Your task to perform on an android device: Go to accessibility settings Image 0: 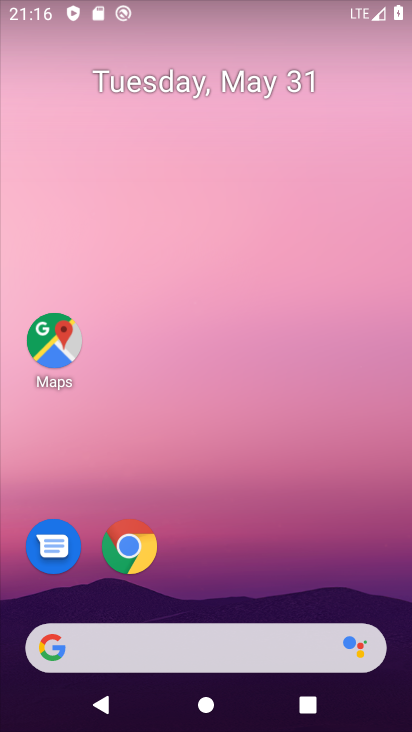
Step 0: drag from (387, 713) to (332, 99)
Your task to perform on an android device: Go to accessibility settings Image 1: 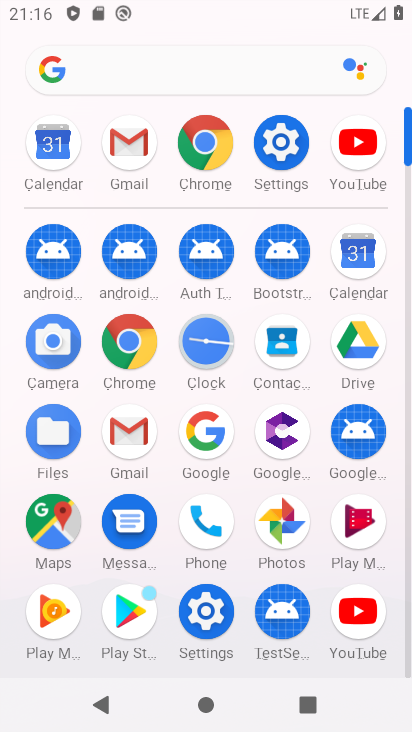
Step 1: click (289, 131)
Your task to perform on an android device: Go to accessibility settings Image 2: 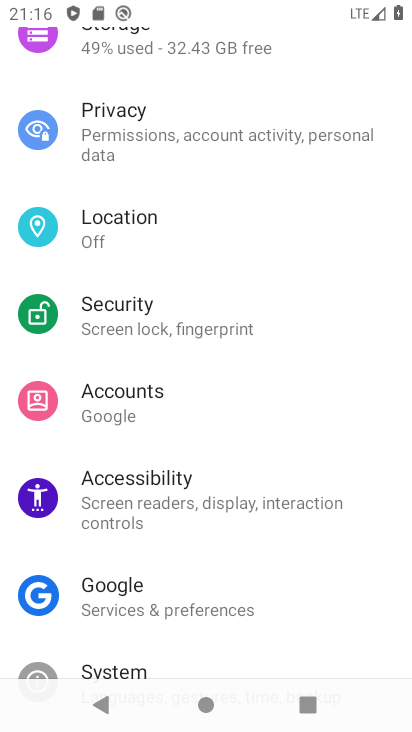
Step 2: click (144, 494)
Your task to perform on an android device: Go to accessibility settings Image 3: 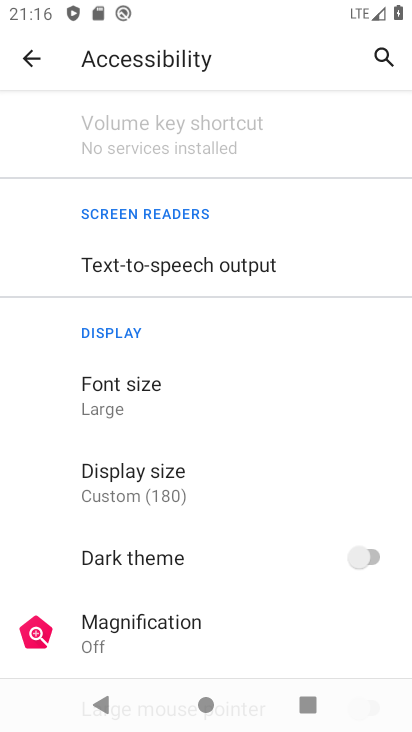
Step 3: task complete